Your task to perform on an android device: Open settings on Google Maps Image 0: 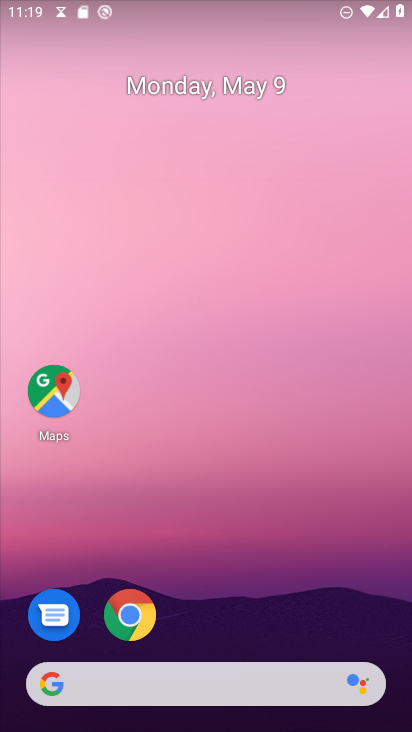
Step 0: drag from (209, 725) to (221, 0)
Your task to perform on an android device: Open settings on Google Maps Image 1: 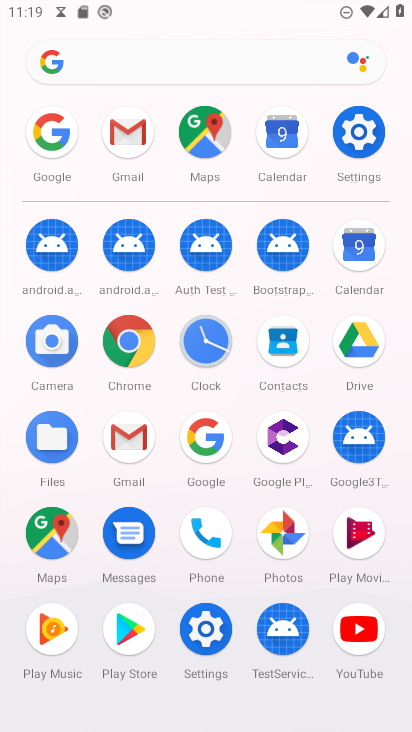
Step 1: click (46, 539)
Your task to perform on an android device: Open settings on Google Maps Image 2: 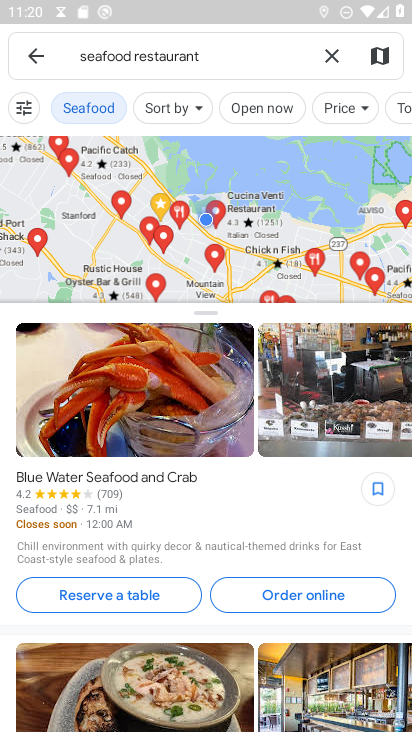
Step 2: click (39, 54)
Your task to perform on an android device: Open settings on Google Maps Image 3: 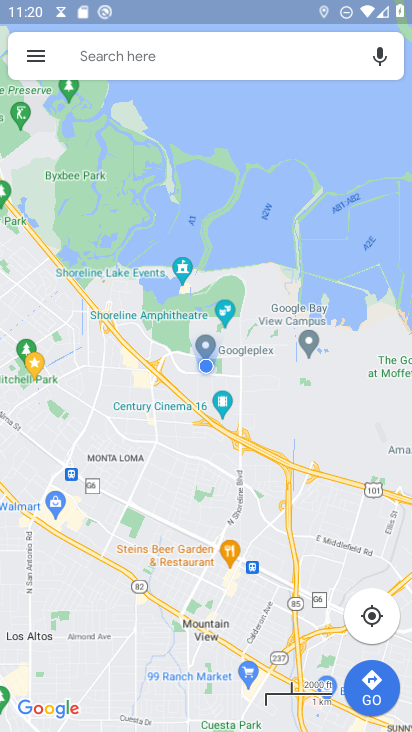
Step 3: click (32, 54)
Your task to perform on an android device: Open settings on Google Maps Image 4: 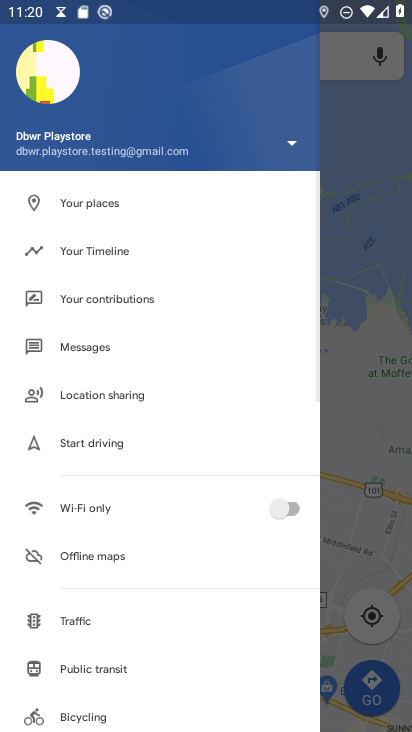
Step 4: drag from (122, 690) to (124, 340)
Your task to perform on an android device: Open settings on Google Maps Image 5: 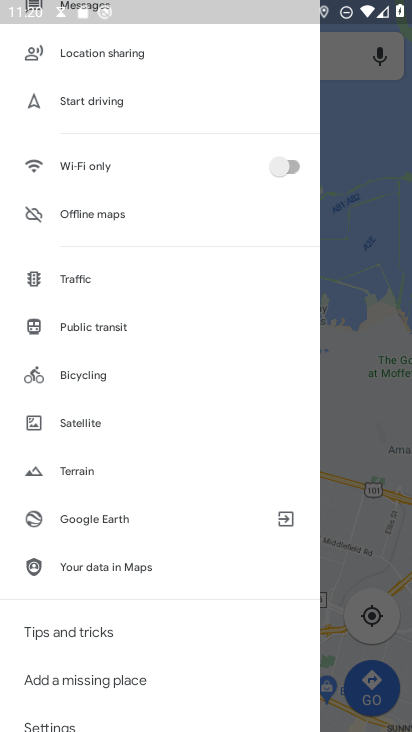
Step 5: drag from (102, 712) to (100, 363)
Your task to perform on an android device: Open settings on Google Maps Image 6: 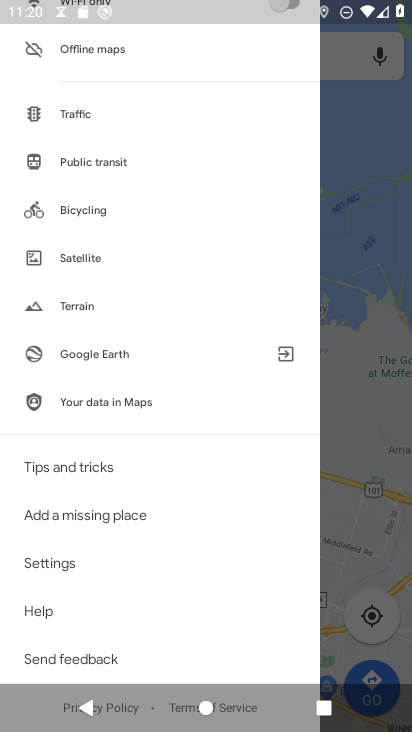
Step 6: click (53, 561)
Your task to perform on an android device: Open settings on Google Maps Image 7: 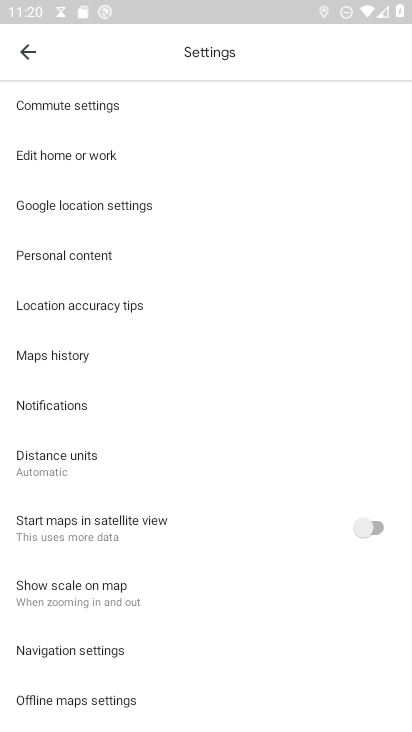
Step 7: task complete